Your task to perform on an android device: open app "McDonald's" Image 0: 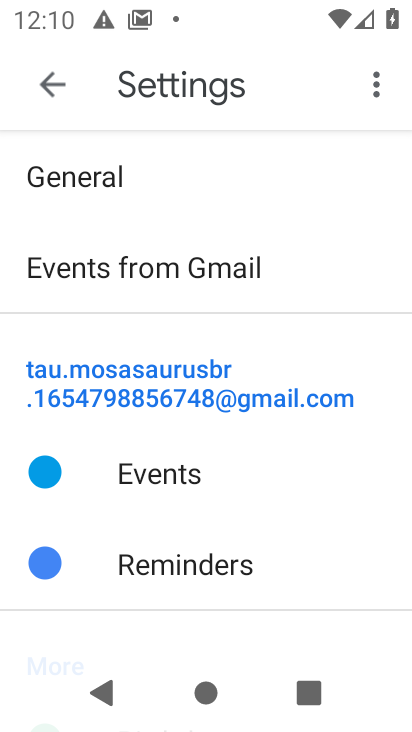
Step 0: press home button
Your task to perform on an android device: open app "McDonald's" Image 1: 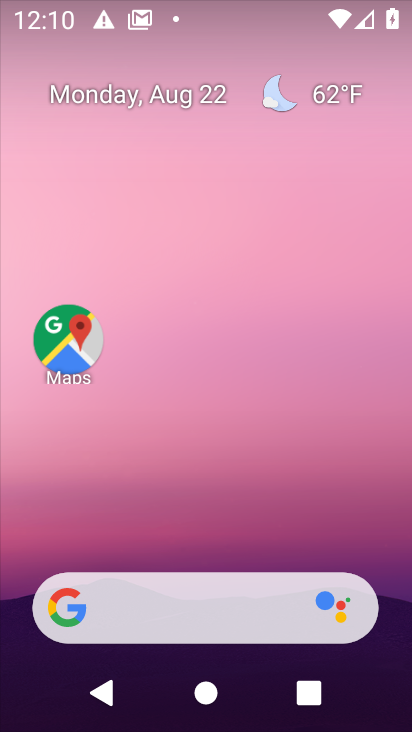
Step 1: drag from (189, 458) to (195, 50)
Your task to perform on an android device: open app "McDonald's" Image 2: 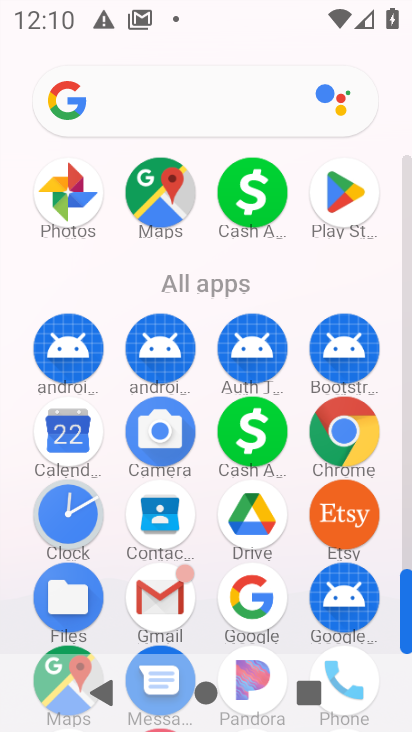
Step 2: click (352, 185)
Your task to perform on an android device: open app "McDonald's" Image 3: 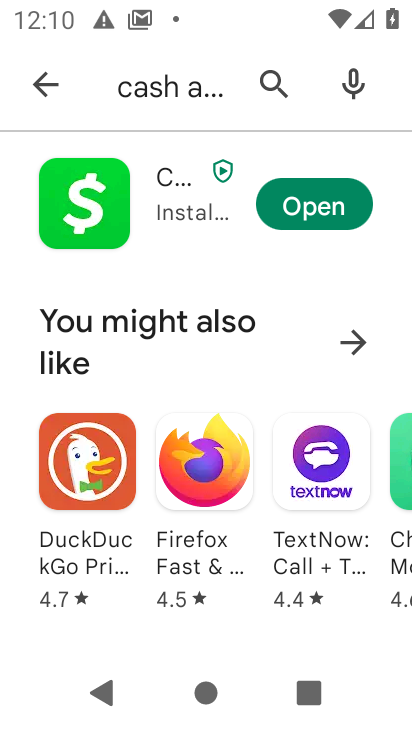
Step 3: click (35, 89)
Your task to perform on an android device: open app "McDonald's" Image 4: 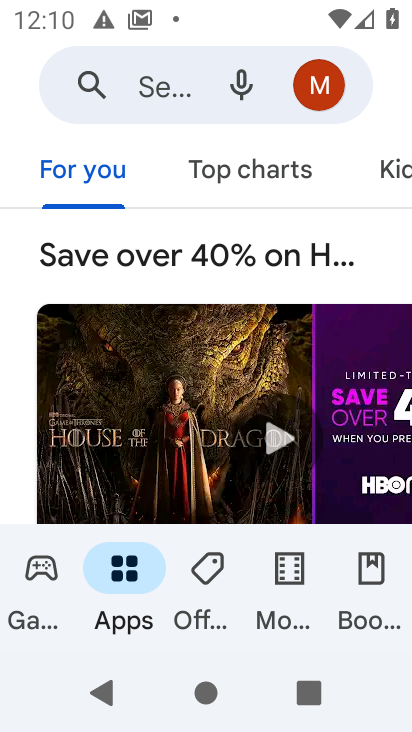
Step 4: click (130, 89)
Your task to perform on an android device: open app "McDonald's" Image 5: 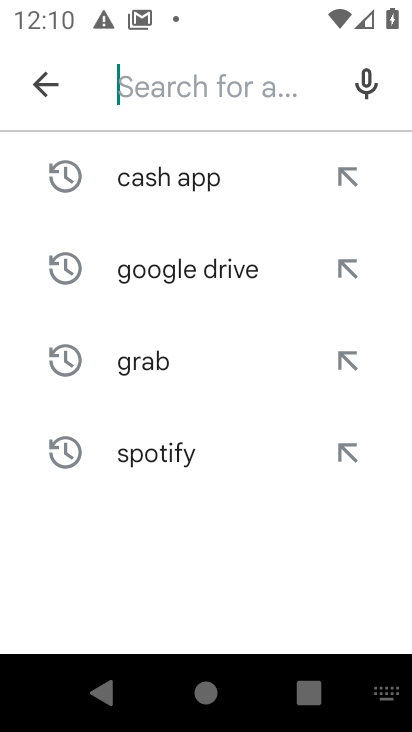
Step 5: type "McDonald's"
Your task to perform on an android device: open app "McDonald's" Image 6: 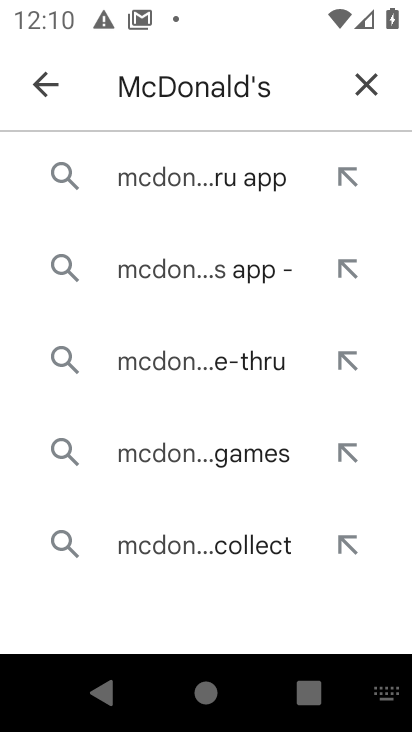
Step 6: click (186, 267)
Your task to perform on an android device: open app "McDonald's" Image 7: 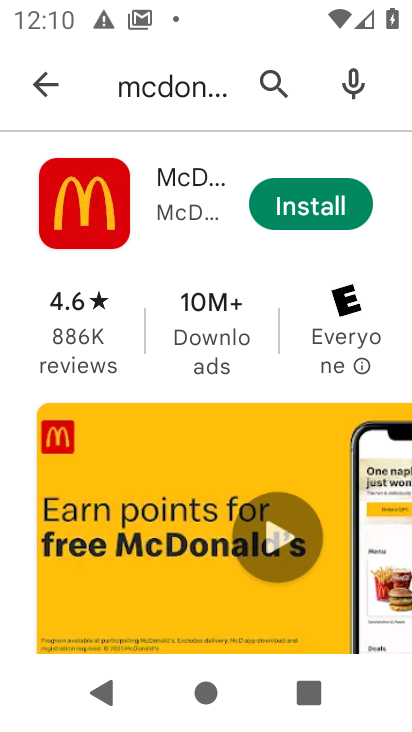
Step 7: click (298, 205)
Your task to perform on an android device: open app "McDonald's" Image 8: 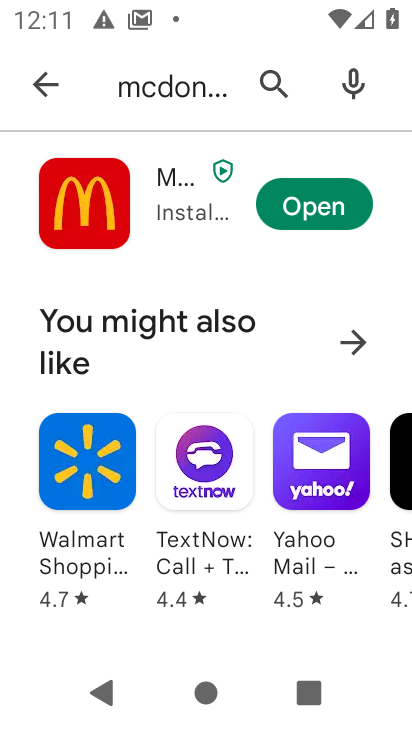
Step 8: click (294, 205)
Your task to perform on an android device: open app "McDonald's" Image 9: 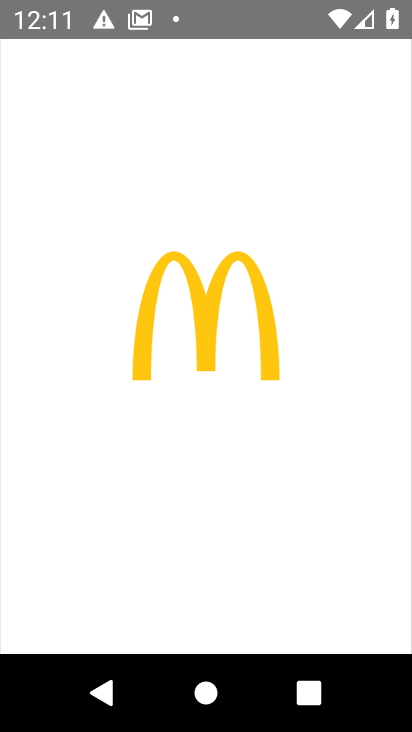
Step 9: task complete